Your task to perform on an android device: toggle javascript in the chrome app Image 0: 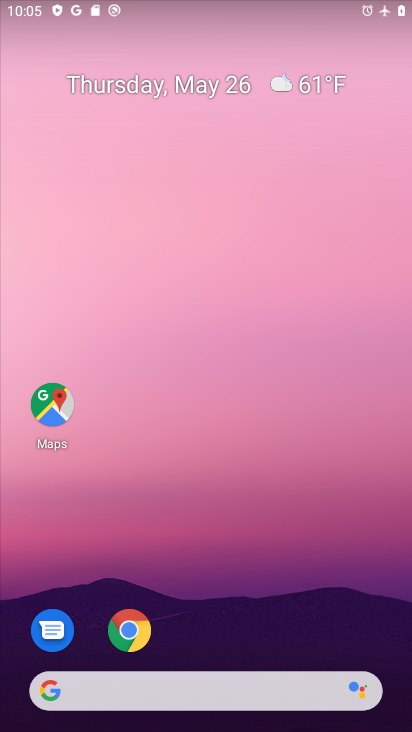
Step 0: click (115, 622)
Your task to perform on an android device: toggle javascript in the chrome app Image 1: 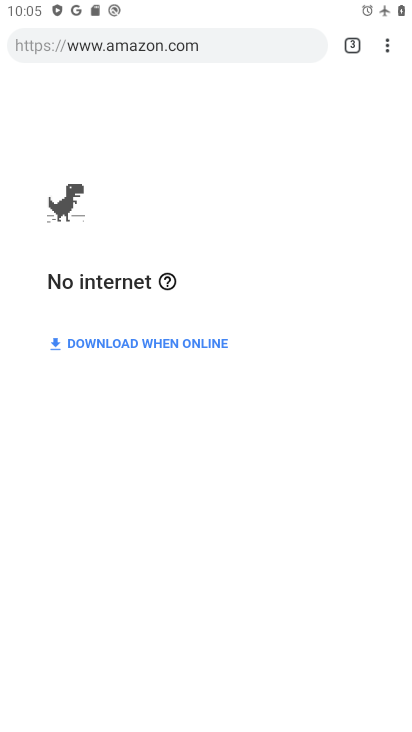
Step 1: click (387, 53)
Your task to perform on an android device: toggle javascript in the chrome app Image 2: 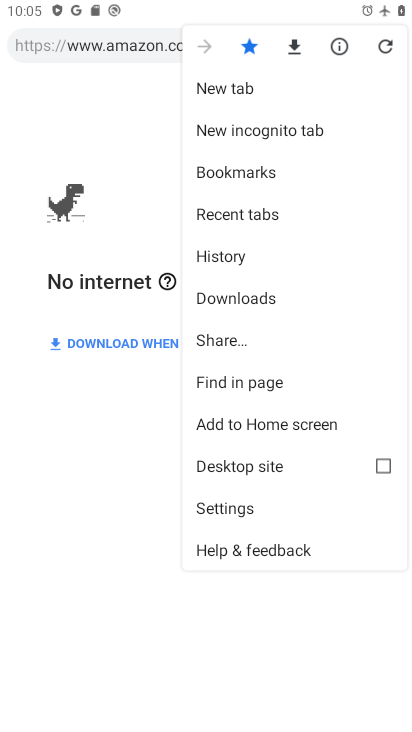
Step 2: click (210, 498)
Your task to perform on an android device: toggle javascript in the chrome app Image 3: 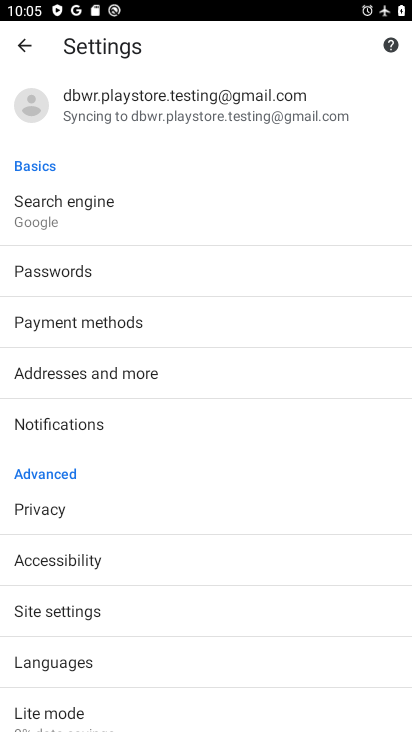
Step 3: click (89, 618)
Your task to perform on an android device: toggle javascript in the chrome app Image 4: 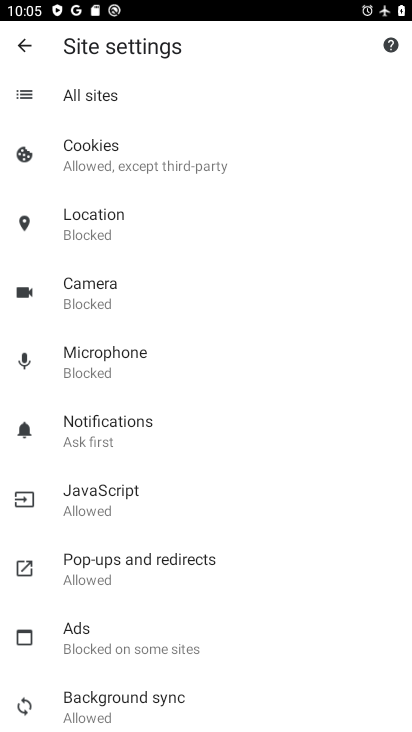
Step 4: click (86, 495)
Your task to perform on an android device: toggle javascript in the chrome app Image 5: 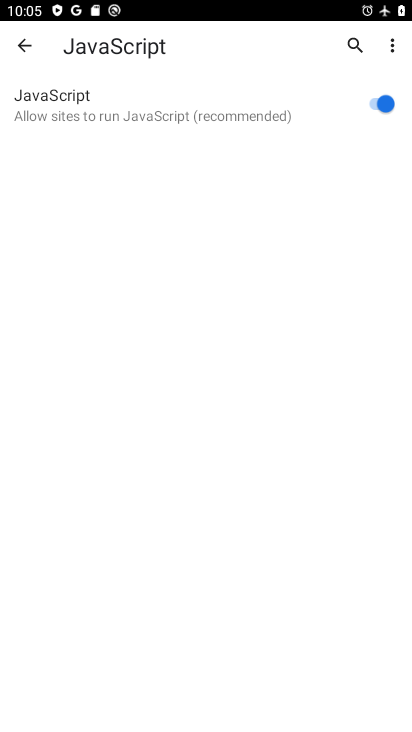
Step 5: click (373, 92)
Your task to perform on an android device: toggle javascript in the chrome app Image 6: 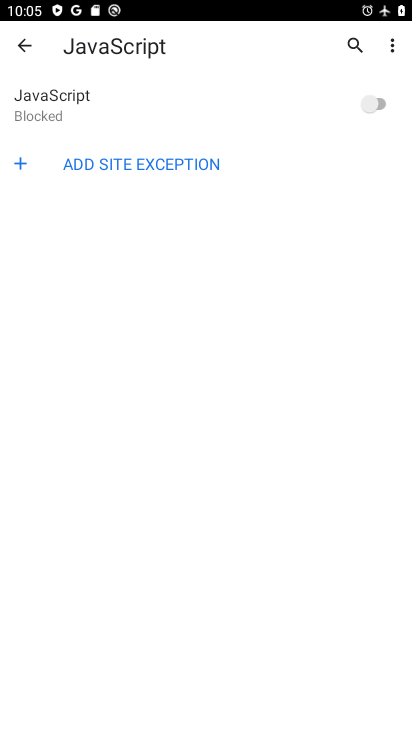
Step 6: task complete